Your task to perform on an android device: all mails in gmail Image 0: 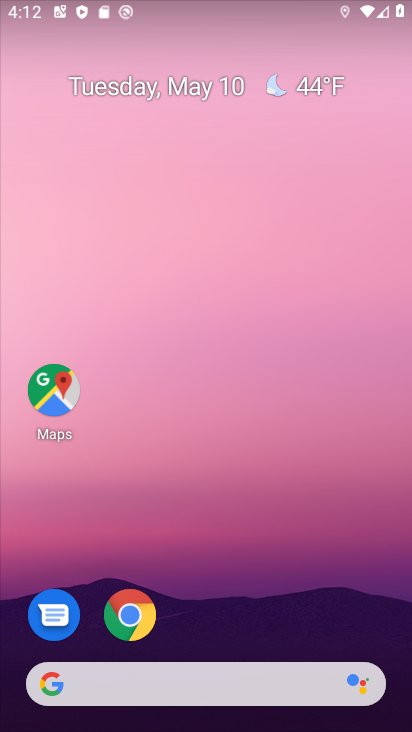
Step 0: drag from (206, 725) to (196, 129)
Your task to perform on an android device: all mails in gmail Image 1: 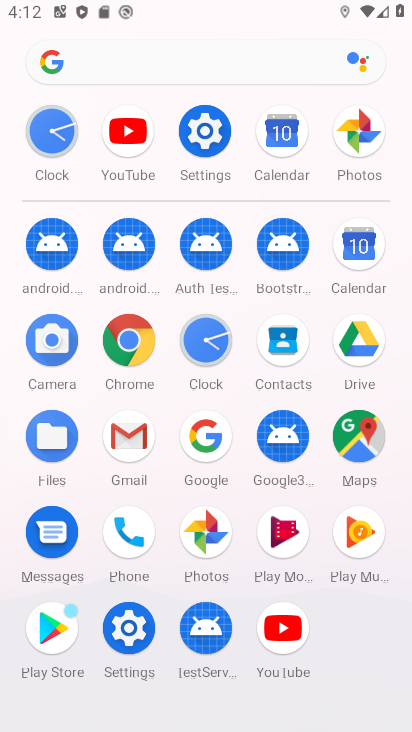
Step 1: click (131, 436)
Your task to perform on an android device: all mails in gmail Image 2: 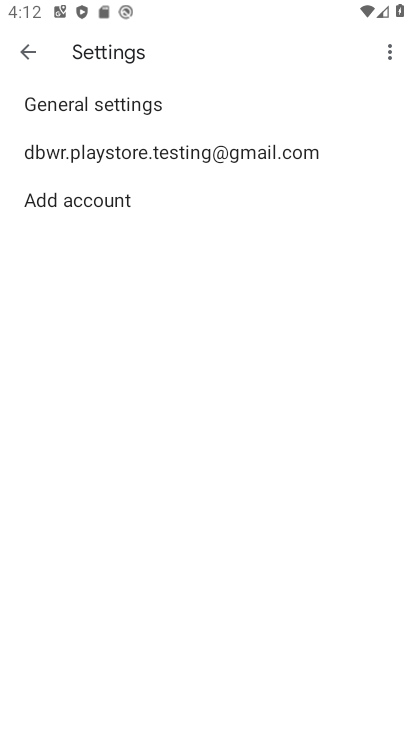
Step 2: click (28, 52)
Your task to perform on an android device: all mails in gmail Image 3: 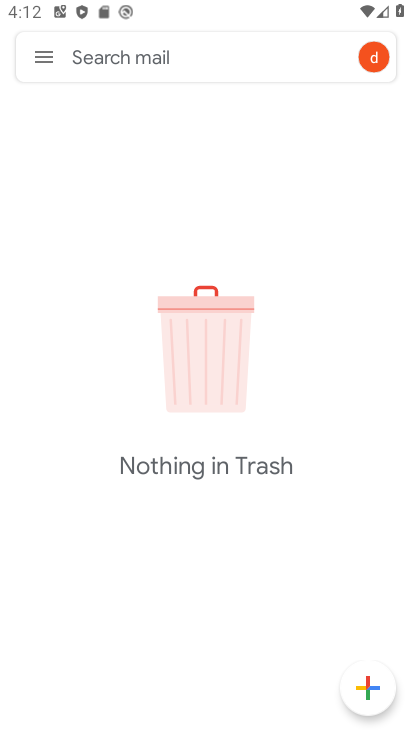
Step 3: click (38, 52)
Your task to perform on an android device: all mails in gmail Image 4: 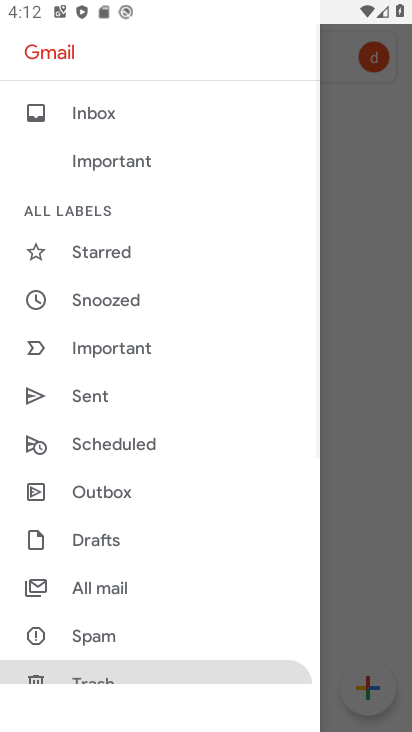
Step 4: drag from (119, 660) to (119, 460)
Your task to perform on an android device: all mails in gmail Image 5: 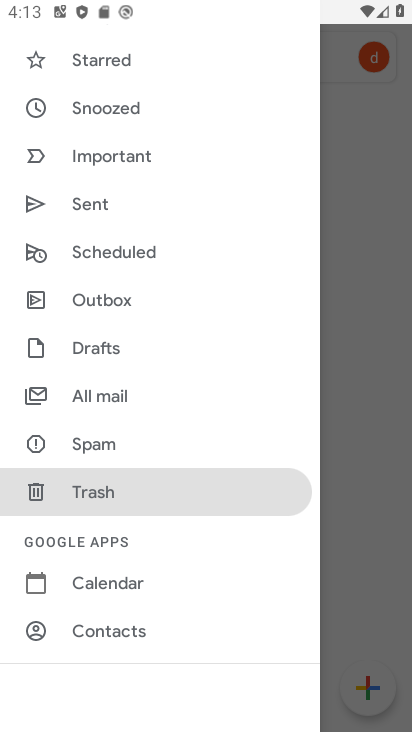
Step 5: click (99, 393)
Your task to perform on an android device: all mails in gmail Image 6: 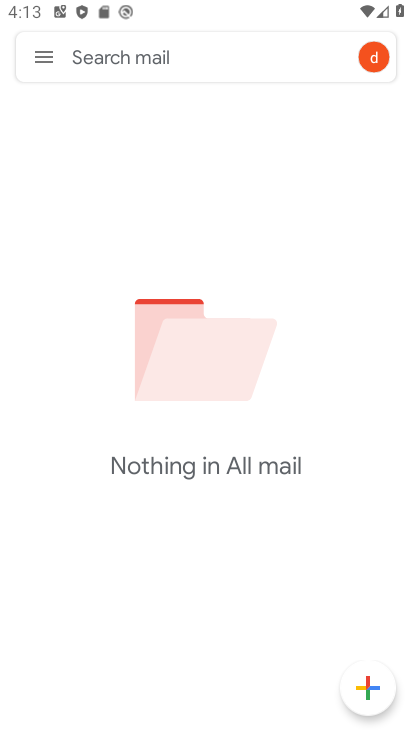
Step 6: task complete